Your task to perform on an android device: change timer sound Image 0: 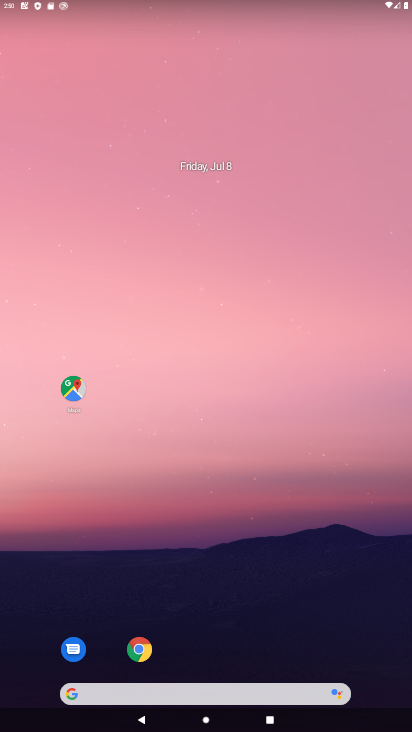
Step 0: drag from (196, 661) to (136, 82)
Your task to perform on an android device: change timer sound Image 1: 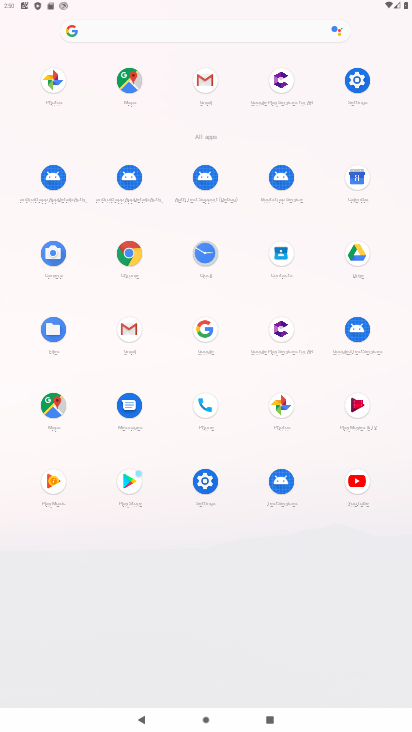
Step 1: click (210, 266)
Your task to perform on an android device: change timer sound Image 2: 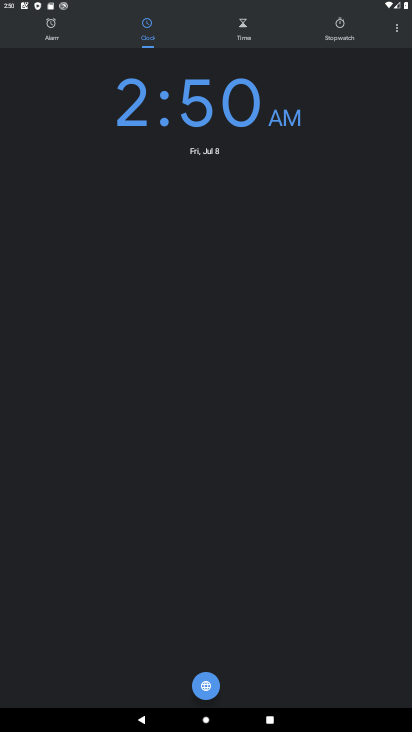
Step 2: click (394, 30)
Your task to perform on an android device: change timer sound Image 3: 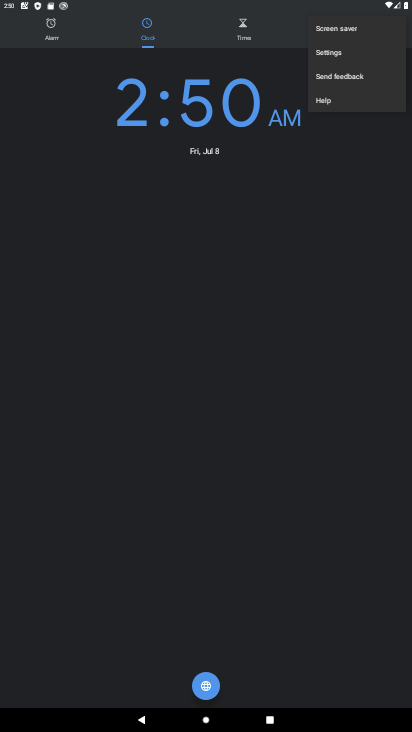
Step 3: click (321, 50)
Your task to perform on an android device: change timer sound Image 4: 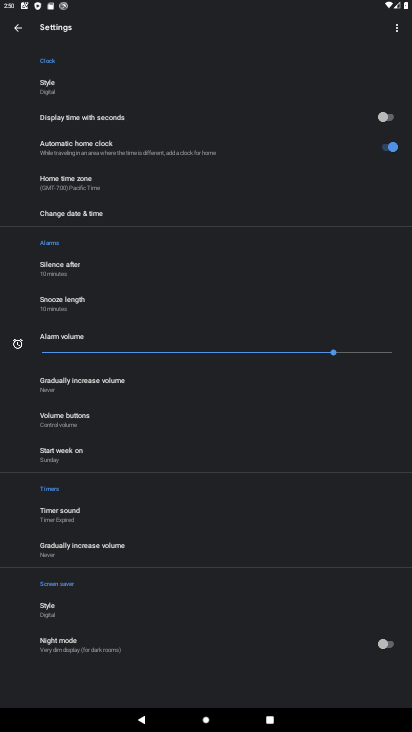
Step 4: click (86, 513)
Your task to perform on an android device: change timer sound Image 5: 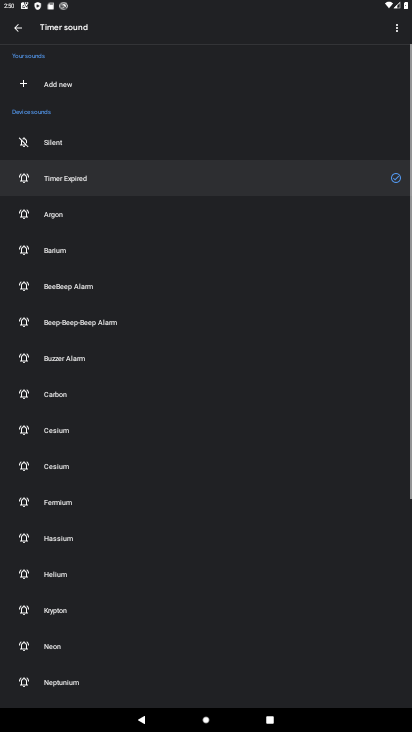
Step 5: click (50, 211)
Your task to perform on an android device: change timer sound Image 6: 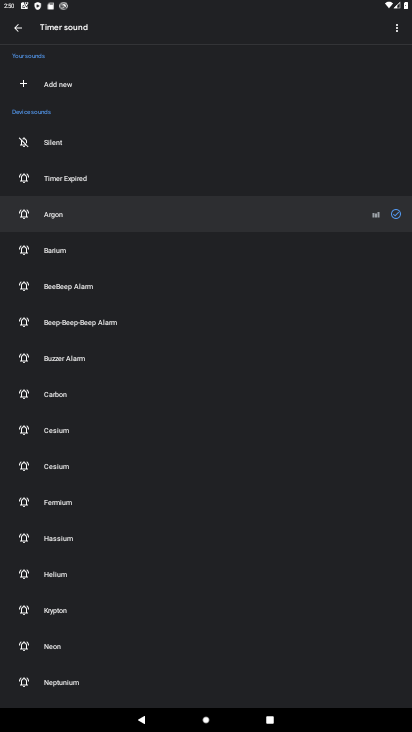
Step 6: task complete